Your task to perform on an android device: Go to Maps Image 0: 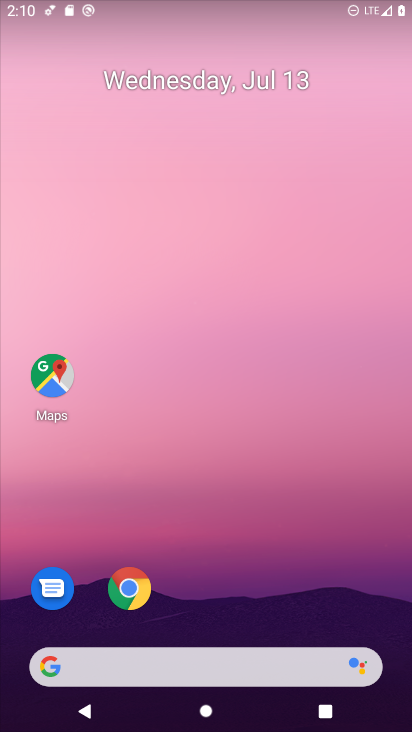
Step 0: drag from (167, 558) to (167, 378)
Your task to perform on an android device: Go to Maps Image 1: 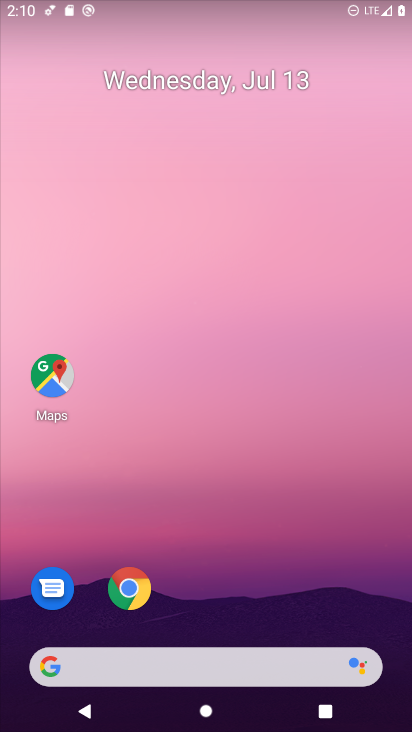
Step 1: drag from (188, 609) to (214, 348)
Your task to perform on an android device: Go to Maps Image 2: 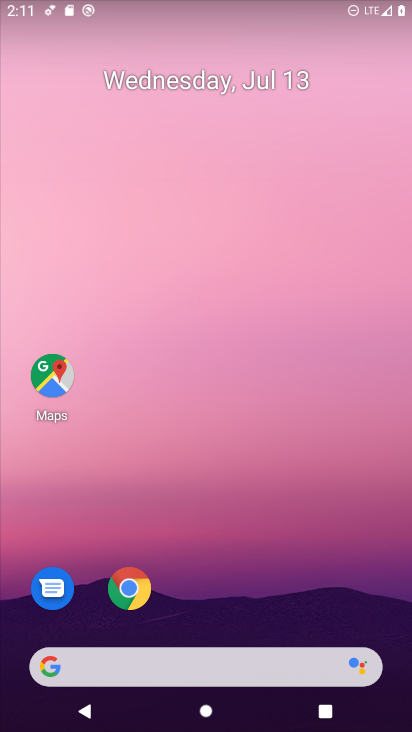
Step 2: drag from (222, 598) to (335, 105)
Your task to perform on an android device: Go to Maps Image 3: 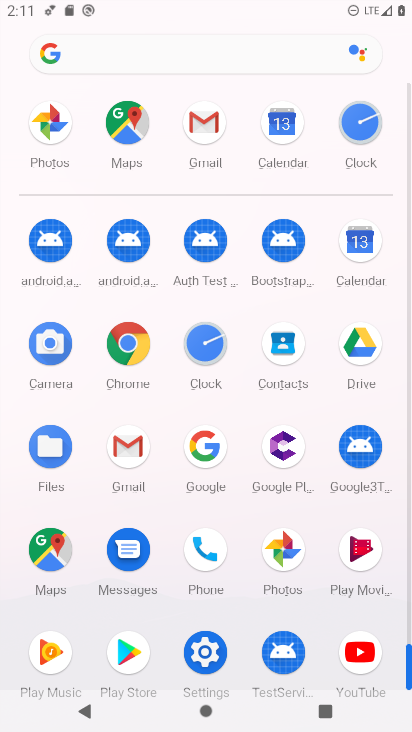
Step 3: click (52, 560)
Your task to perform on an android device: Go to Maps Image 4: 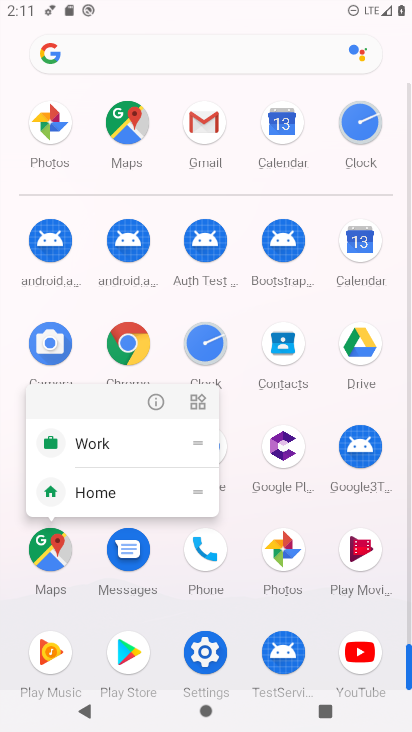
Step 4: click (155, 401)
Your task to perform on an android device: Go to Maps Image 5: 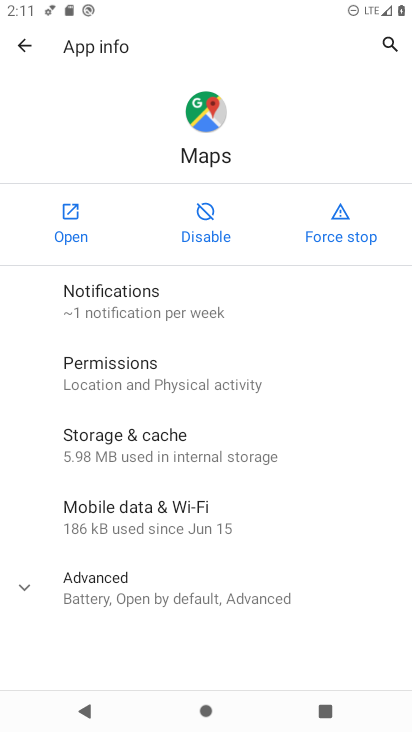
Step 5: click (74, 229)
Your task to perform on an android device: Go to Maps Image 6: 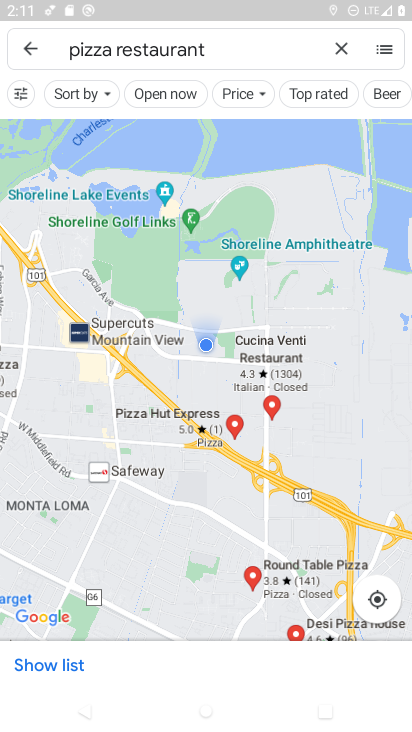
Step 6: task complete